Your task to perform on an android device: see tabs open on other devices in the chrome app Image 0: 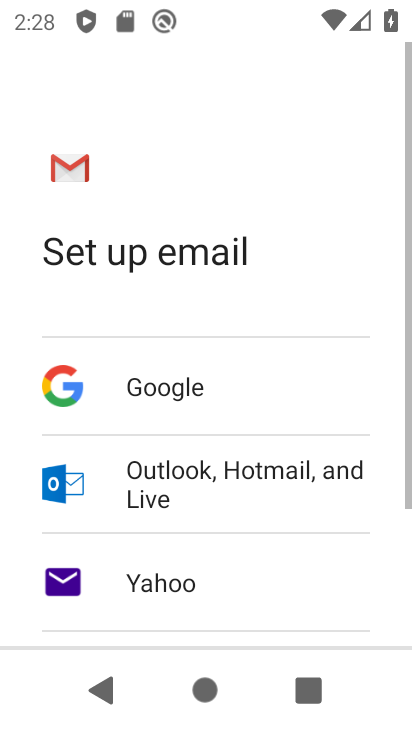
Step 0: press back button
Your task to perform on an android device: see tabs open on other devices in the chrome app Image 1: 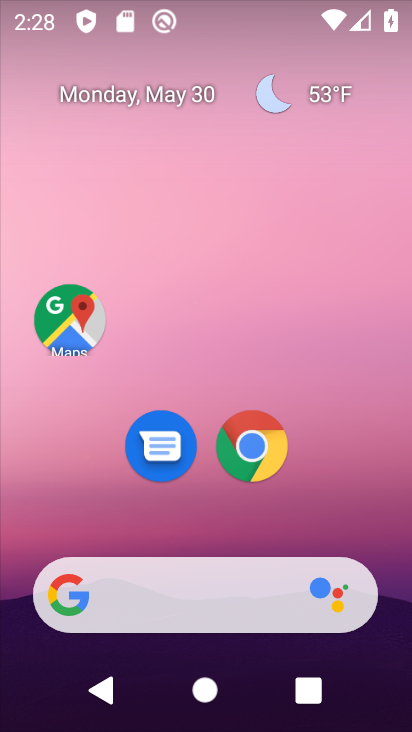
Step 1: click (253, 447)
Your task to perform on an android device: see tabs open on other devices in the chrome app Image 2: 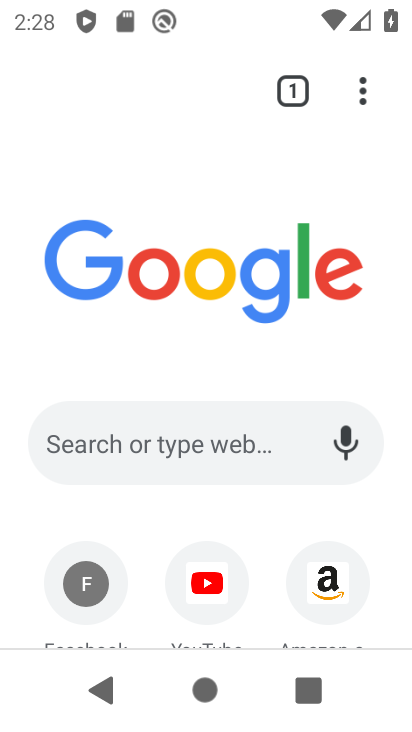
Step 2: click (360, 93)
Your task to perform on an android device: see tabs open on other devices in the chrome app Image 3: 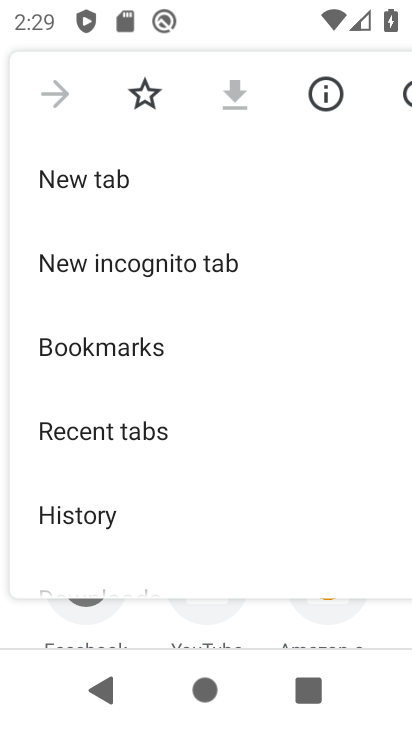
Step 3: drag from (83, 491) to (171, 386)
Your task to perform on an android device: see tabs open on other devices in the chrome app Image 4: 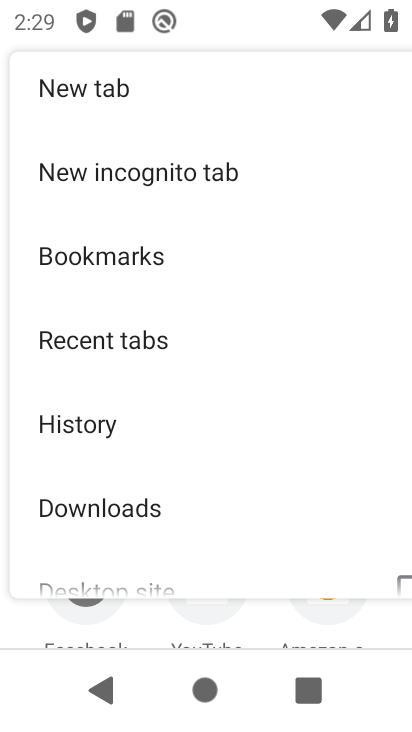
Step 4: click (166, 349)
Your task to perform on an android device: see tabs open on other devices in the chrome app Image 5: 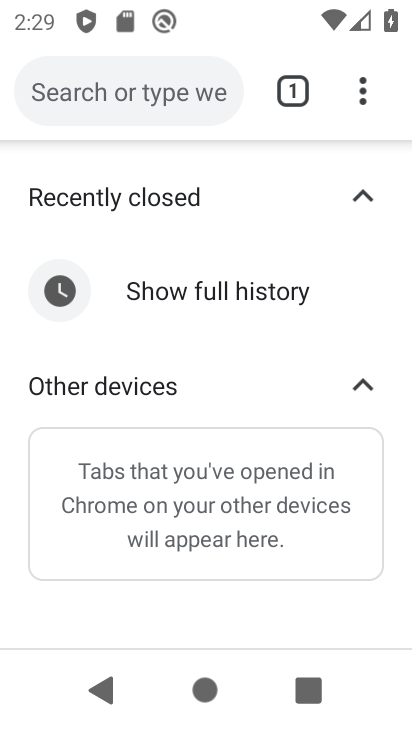
Step 5: task complete